Your task to perform on an android device: Open the stopwatch Image 0: 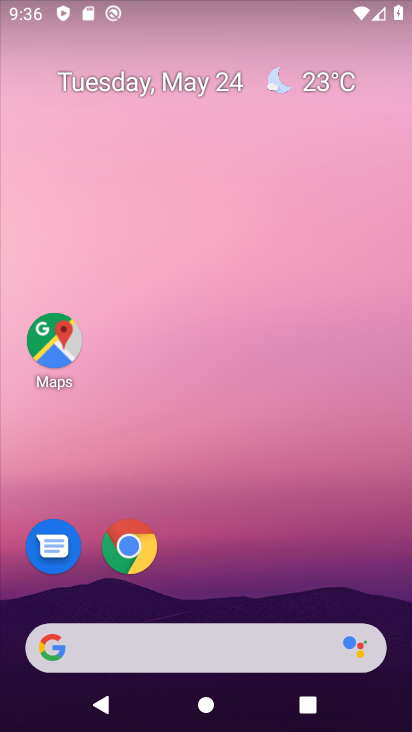
Step 0: drag from (203, 567) to (225, 113)
Your task to perform on an android device: Open the stopwatch Image 1: 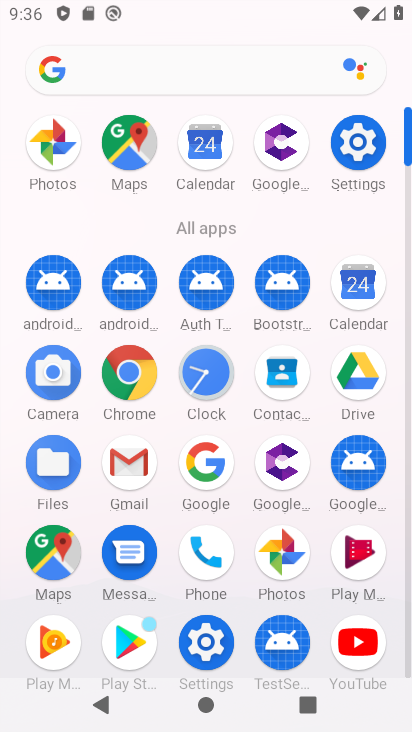
Step 1: click (205, 370)
Your task to perform on an android device: Open the stopwatch Image 2: 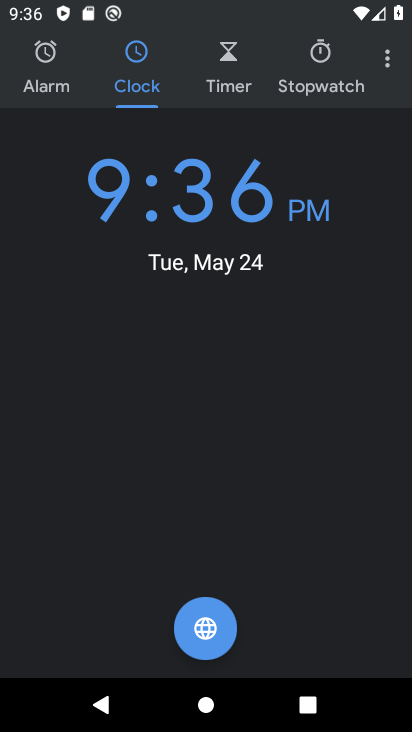
Step 2: click (329, 67)
Your task to perform on an android device: Open the stopwatch Image 3: 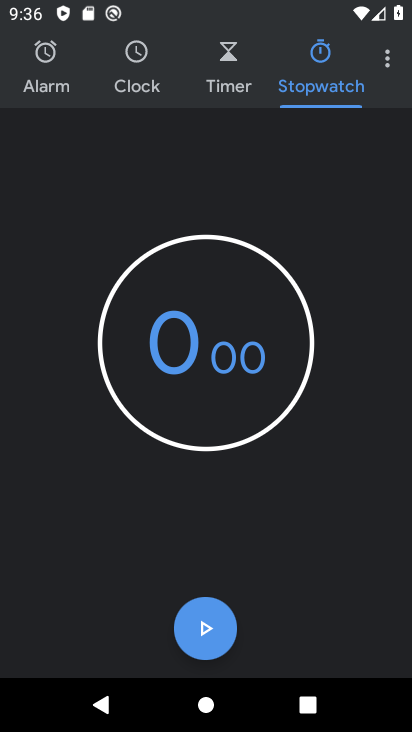
Step 3: click (206, 626)
Your task to perform on an android device: Open the stopwatch Image 4: 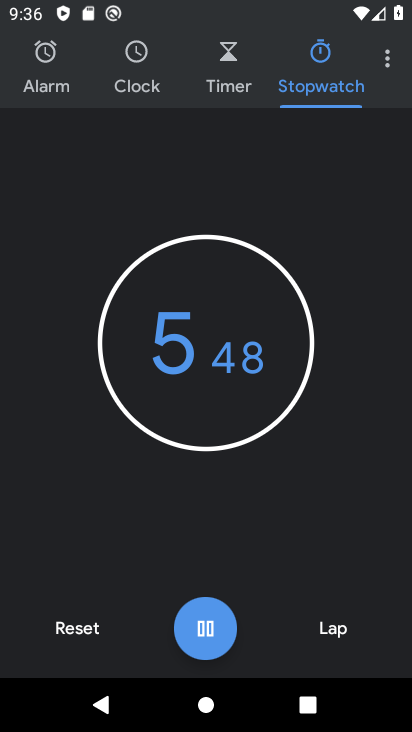
Step 4: task complete